Your task to perform on an android device: What's the weather going to be tomorrow? Image 0: 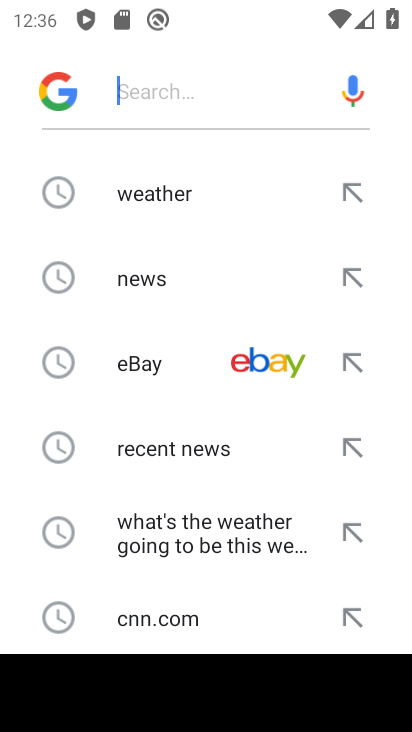
Step 0: press home button
Your task to perform on an android device: What's the weather going to be tomorrow? Image 1: 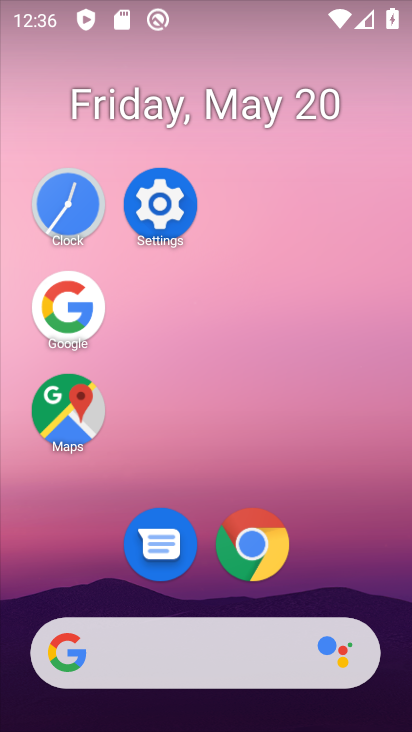
Step 1: click (78, 320)
Your task to perform on an android device: What's the weather going to be tomorrow? Image 2: 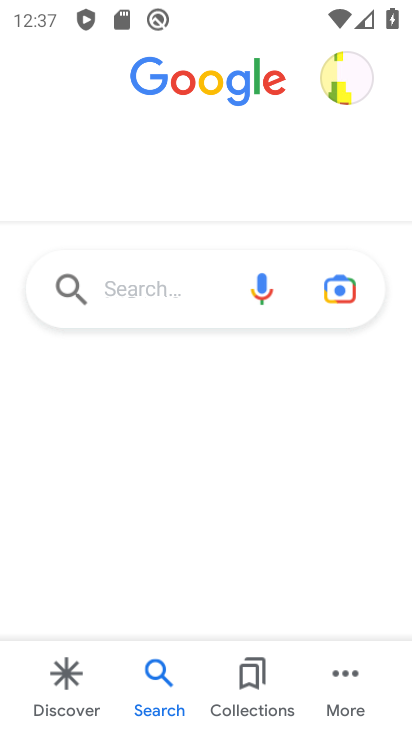
Step 2: click (182, 285)
Your task to perform on an android device: What's the weather going to be tomorrow? Image 3: 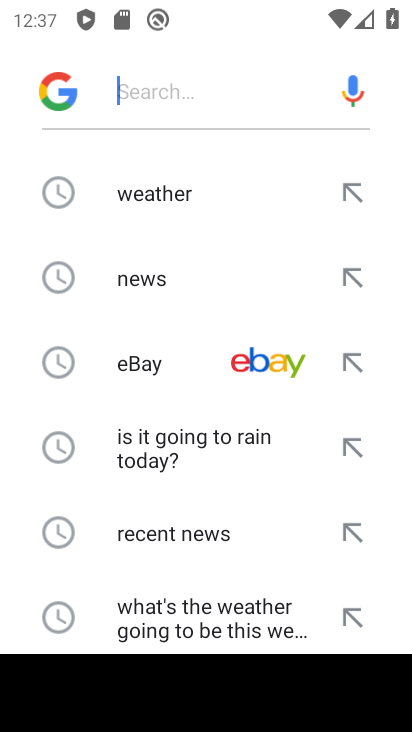
Step 3: click (149, 189)
Your task to perform on an android device: What's the weather going to be tomorrow? Image 4: 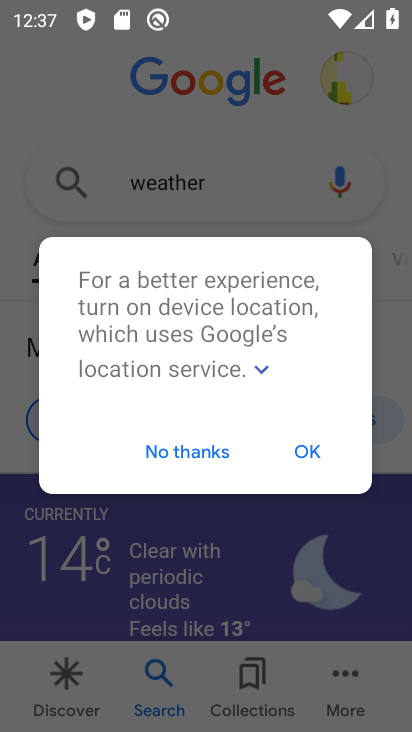
Step 4: click (326, 447)
Your task to perform on an android device: What's the weather going to be tomorrow? Image 5: 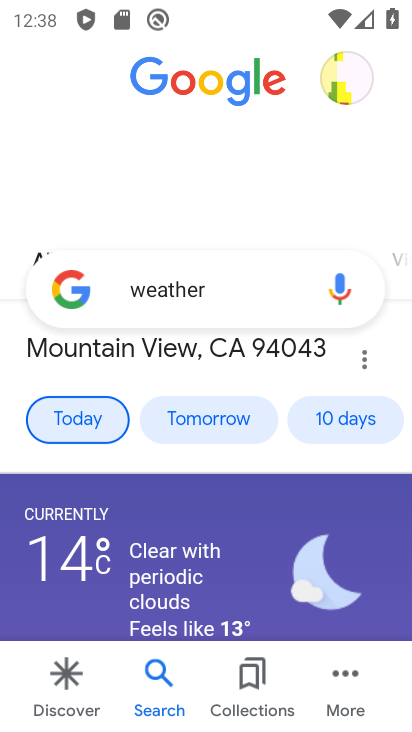
Step 5: click (210, 424)
Your task to perform on an android device: What's the weather going to be tomorrow? Image 6: 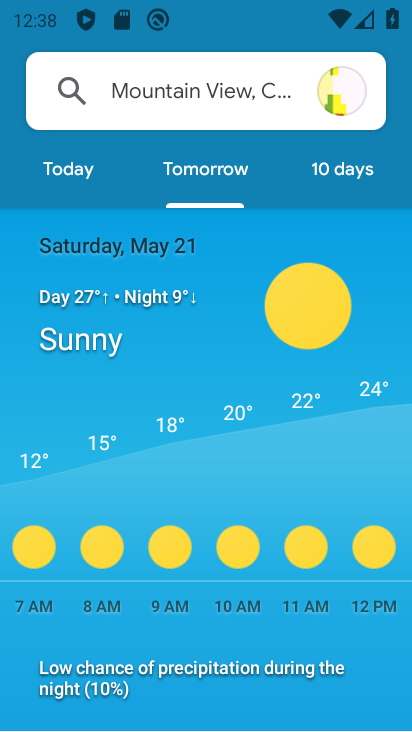
Step 6: task complete